Your task to perform on an android device: Clear the shopping cart on newegg.com. Search for "usb-c to usb-a" on newegg.com, select the first entry, and add it to the cart. Image 0: 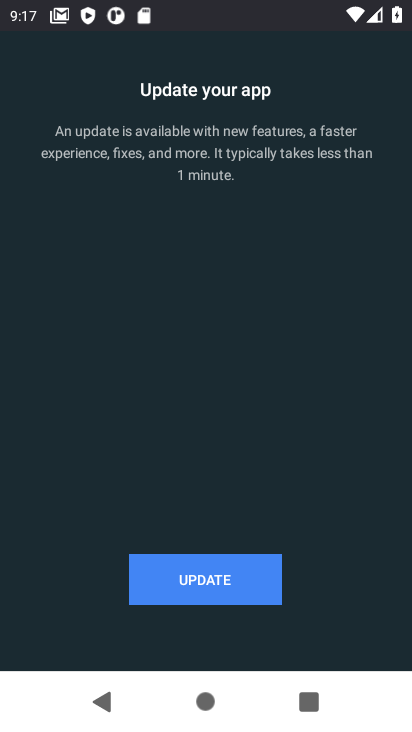
Step 0: press home button
Your task to perform on an android device: Clear the shopping cart on newegg.com. Search for "usb-c to usb-a" on newegg.com, select the first entry, and add it to the cart. Image 1: 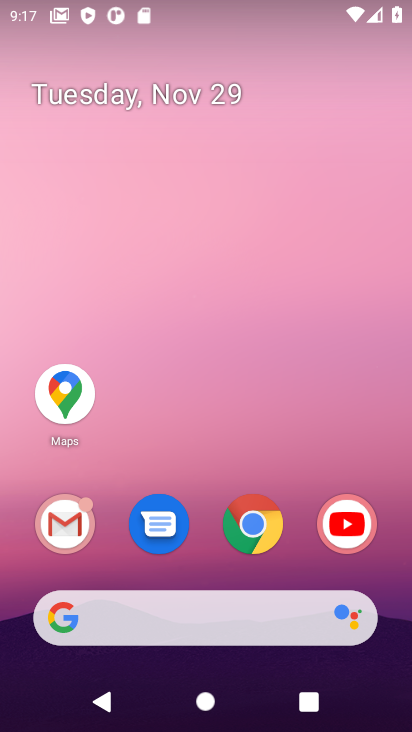
Step 1: click (245, 536)
Your task to perform on an android device: Clear the shopping cart on newegg.com. Search for "usb-c to usb-a" on newegg.com, select the first entry, and add it to the cart. Image 2: 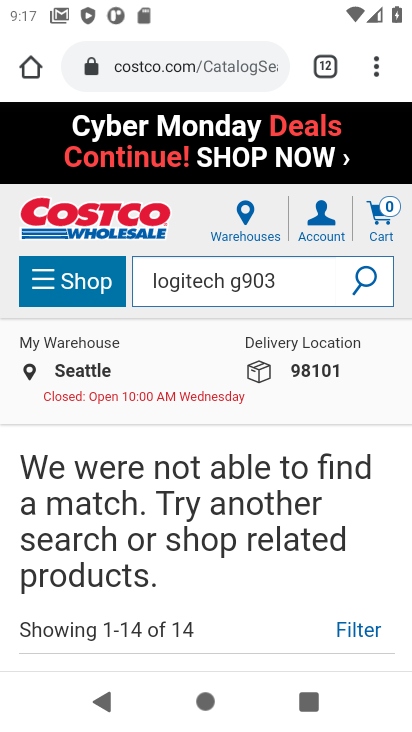
Step 2: click (174, 72)
Your task to perform on an android device: Clear the shopping cart on newegg.com. Search for "usb-c to usb-a" on newegg.com, select the first entry, and add it to the cart. Image 3: 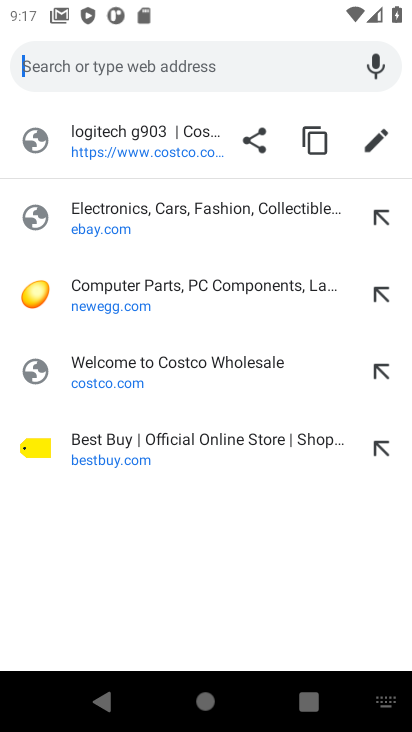
Step 3: click (106, 311)
Your task to perform on an android device: Clear the shopping cart on newegg.com. Search for "usb-c to usb-a" on newegg.com, select the first entry, and add it to the cart. Image 4: 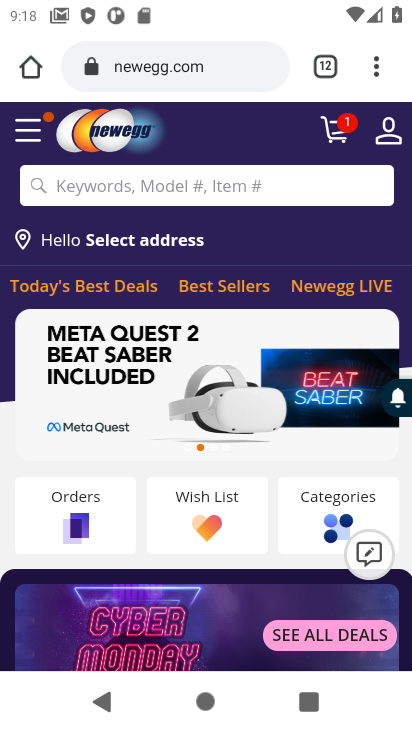
Step 4: click (334, 131)
Your task to perform on an android device: Clear the shopping cart on newegg.com. Search for "usb-c to usb-a" on newegg.com, select the first entry, and add it to the cart. Image 5: 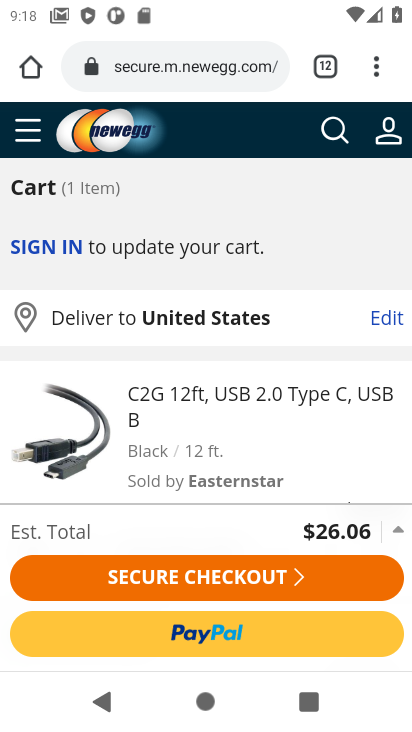
Step 5: drag from (173, 488) to (173, 230)
Your task to perform on an android device: Clear the shopping cart on newegg.com. Search for "usb-c to usb-a" on newegg.com, select the first entry, and add it to the cart. Image 6: 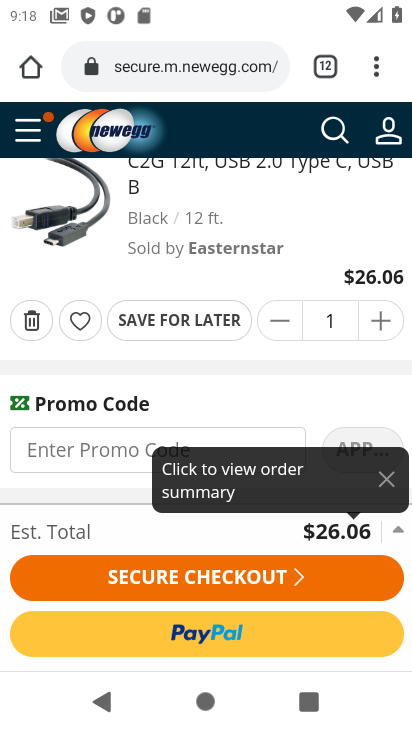
Step 6: click (32, 327)
Your task to perform on an android device: Clear the shopping cart on newegg.com. Search for "usb-c to usb-a" on newegg.com, select the first entry, and add it to the cart. Image 7: 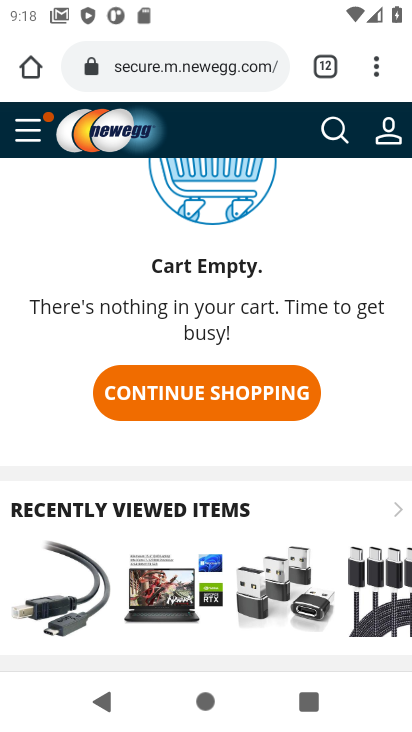
Step 7: click (326, 125)
Your task to perform on an android device: Clear the shopping cart on newegg.com. Search for "usb-c to usb-a" on newegg.com, select the first entry, and add it to the cart. Image 8: 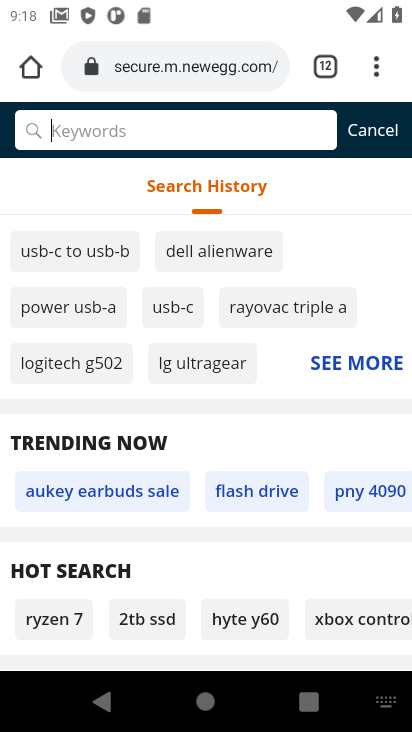
Step 8: type "usb-c to usb-a"
Your task to perform on an android device: Clear the shopping cart on newegg.com. Search for "usb-c to usb-a" on newegg.com, select the first entry, and add it to the cart. Image 9: 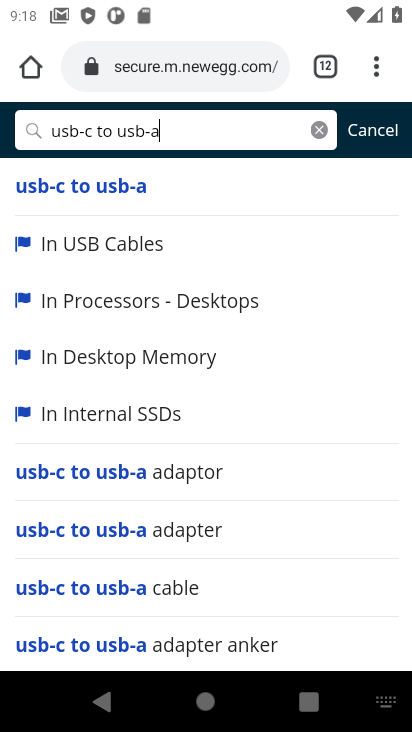
Step 9: click (73, 186)
Your task to perform on an android device: Clear the shopping cart on newegg.com. Search for "usb-c to usb-a" on newegg.com, select the first entry, and add it to the cart. Image 10: 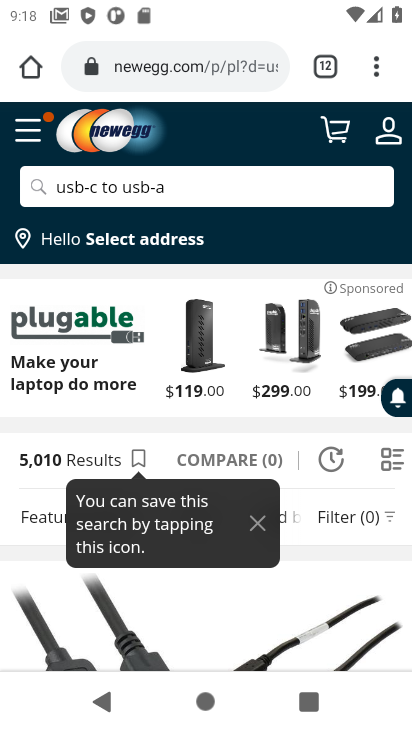
Step 10: drag from (107, 446) to (105, 248)
Your task to perform on an android device: Clear the shopping cart on newegg.com. Search for "usb-c to usb-a" on newegg.com, select the first entry, and add it to the cart. Image 11: 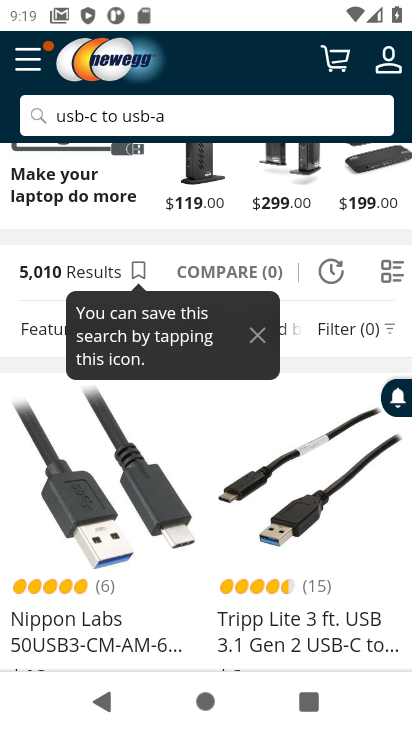
Step 11: drag from (96, 508) to (96, 327)
Your task to perform on an android device: Clear the shopping cart on newegg.com. Search for "usb-c to usb-a" on newegg.com, select the first entry, and add it to the cart. Image 12: 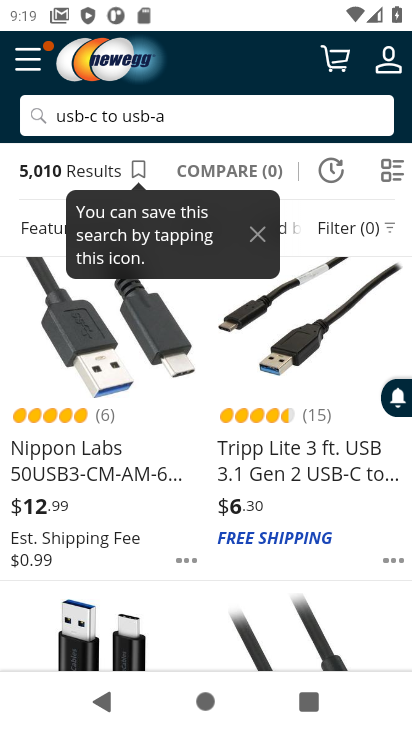
Step 12: click (90, 372)
Your task to perform on an android device: Clear the shopping cart on newegg.com. Search for "usb-c to usb-a" on newegg.com, select the first entry, and add it to the cart. Image 13: 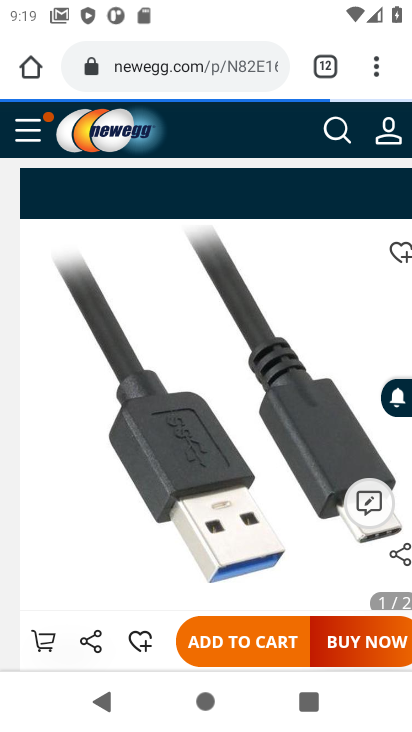
Step 13: drag from (183, 529) to (186, 240)
Your task to perform on an android device: Clear the shopping cart on newegg.com. Search for "usb-c to usb-a" on newegg.com, select the first entry, and add it to the cart. Image 14: 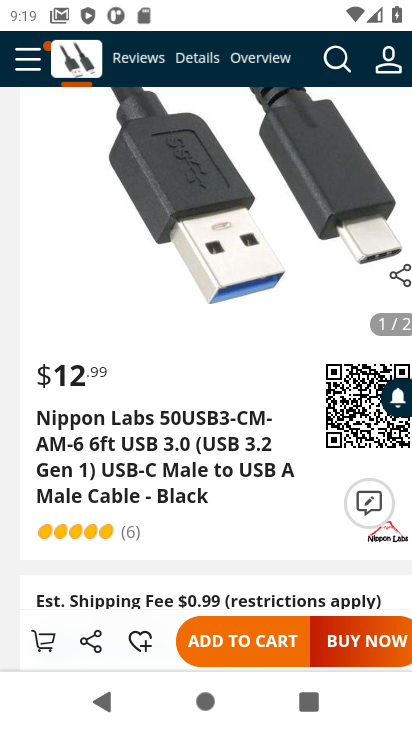
Step 14: click (244, 640)
Your task to perform on an android device: Clear the shopping cart on newegg.com. Search for "usb-c to usb-a" on newegg.com, select the first entry, and add it to the cart. Image 15: 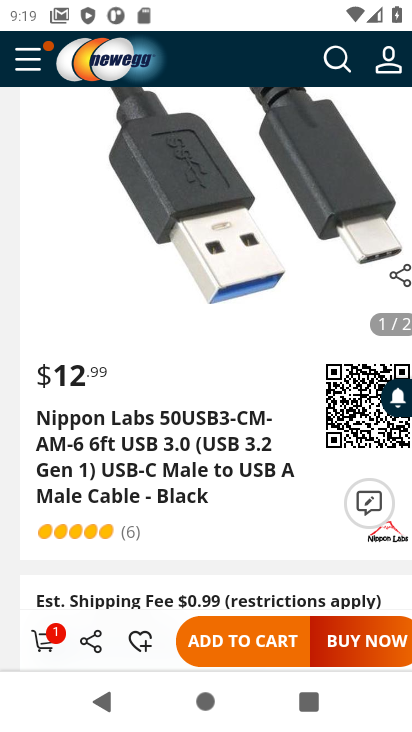
Step 15: task complete